Your task to perform on an android device: turn pop-ups on in chrome Image 0: 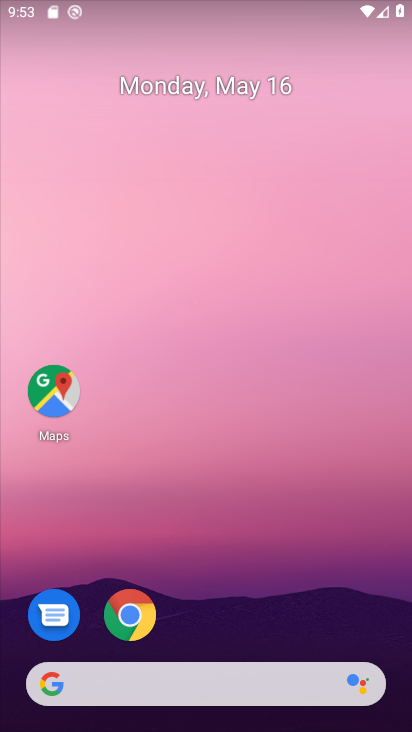
Step 0: drag from (251, 490) to (192, 11)
Your task to perform on an android device: turn pop-ups on in chrome Image 1: 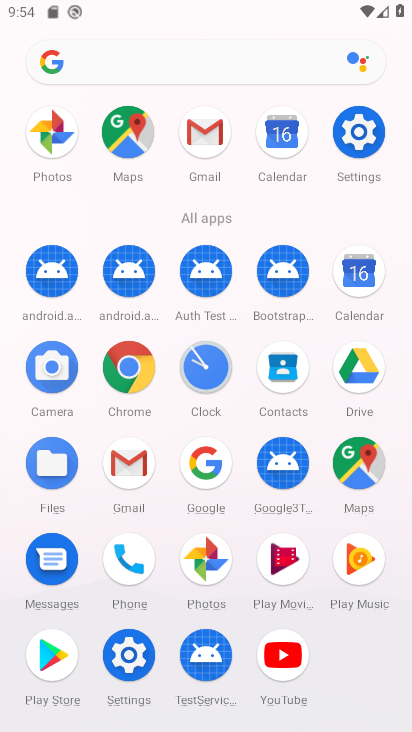
Step 1: click (125, 365)
Your task to perform on an android device: turn pop-ups on in chrome Image 2: 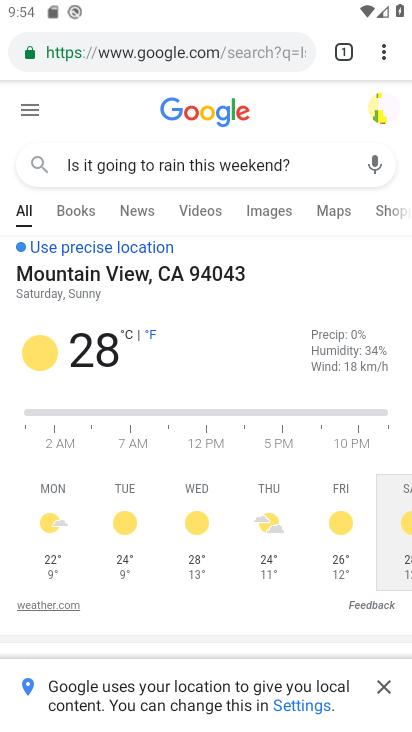
Step 2: drag from (383, 55) to (221, 568)
Your task to perform on an android device: turn pop-ups on in chrome Image 3: 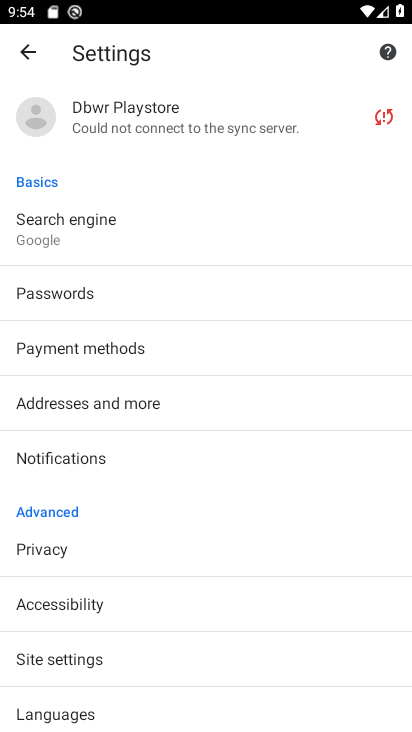
Step 3: drag from (240, 637) to (195, 175)
Your task to perform on an android device: turn pop-ups on in chrome Image 4: 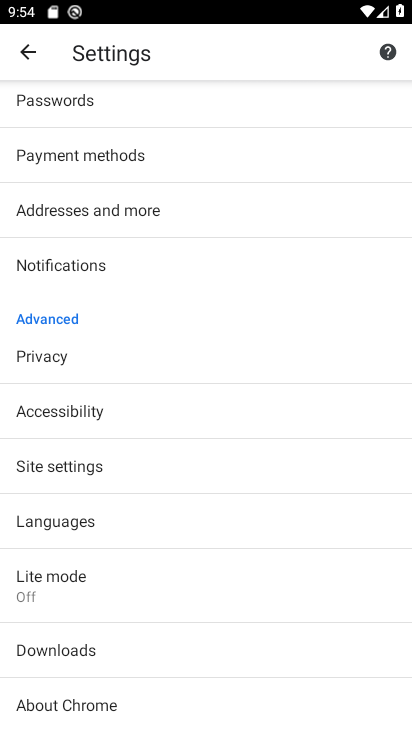
Step 4: click (97, 466)
Your task to perform on an android device: turn pop-ups on in chrome Image 5: 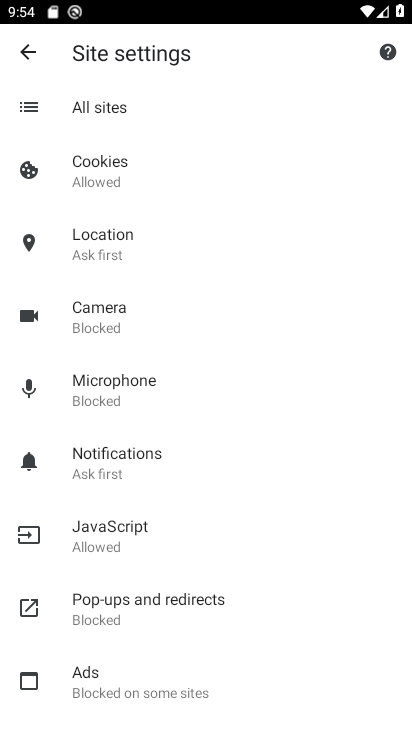
Step 5: drag from (260, 517) to (234, 145)
Your task to perform on an android device: turn pop-ups on in chrome Image 6: 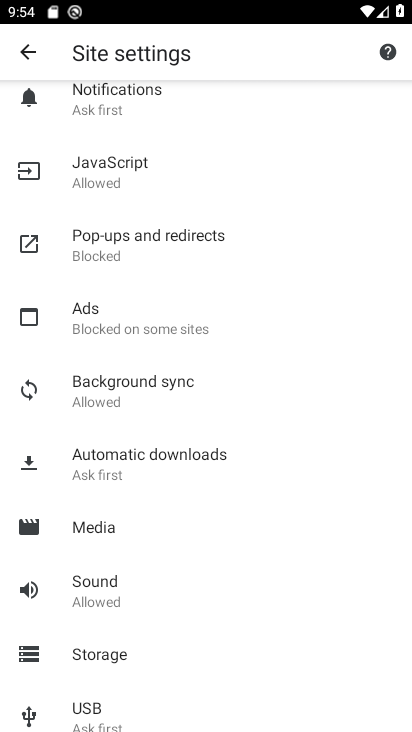
Step 6: click (177, 235)
Your task to perform on an android device: turn pop-ups on in chrome Image 7: 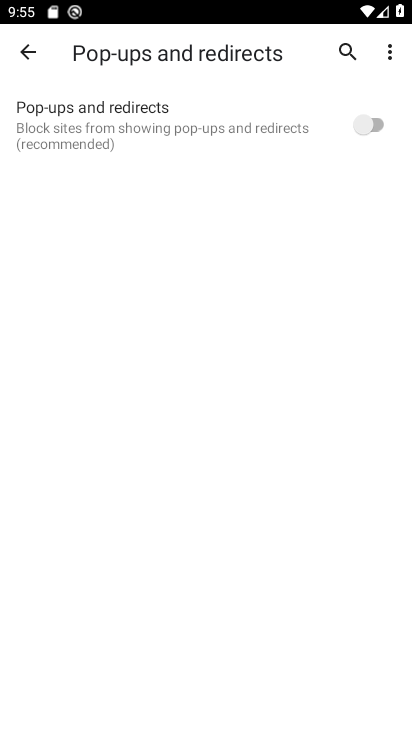
Step 7: click (369, 118)
Your task to perform on an android device: turn pop-ups on in chrome Image 8: 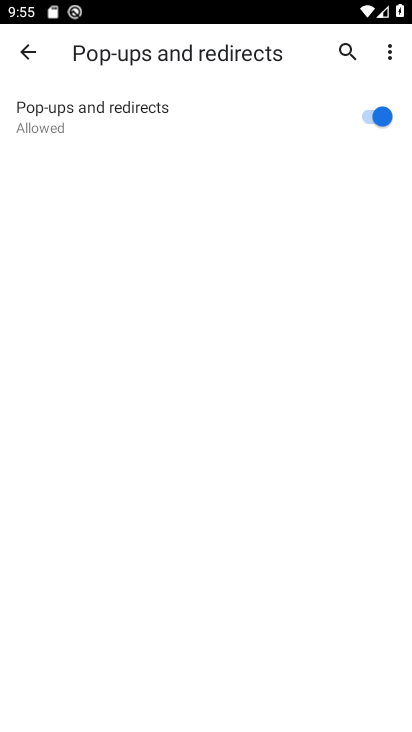
Step 8: task complete